Your task to perform on an android device: change your default location settings in chrome Image 0: 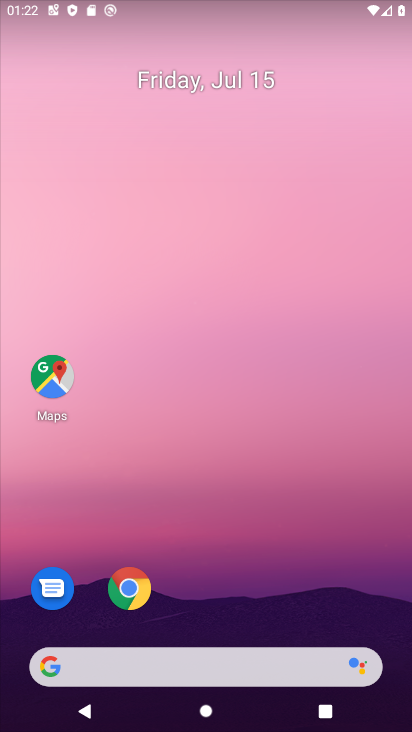
Step 0: click (132, 588)
Your task to perform on an android device: change your default location settings in chrome Image 1: 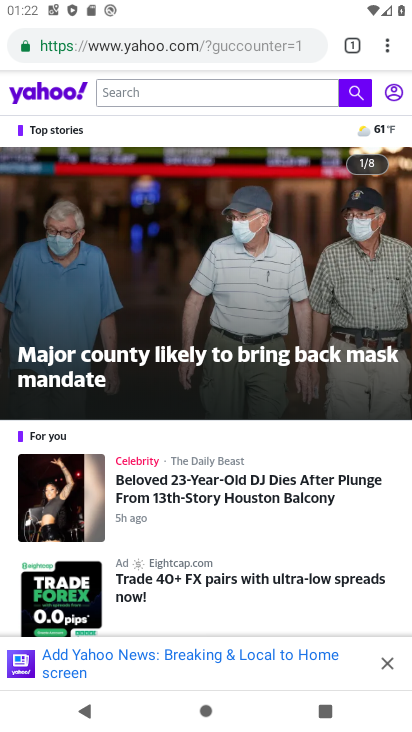
Step 1: click (386, 48)
Your task to perform on an android device: change your default location settings in chrome Image 2: 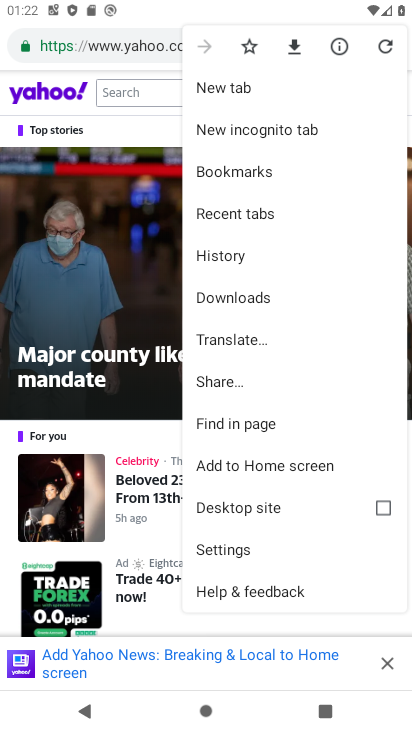
Step 2: click (225, 547)
Your task to perform on an android device: change your default location settings in chrome Image 3: 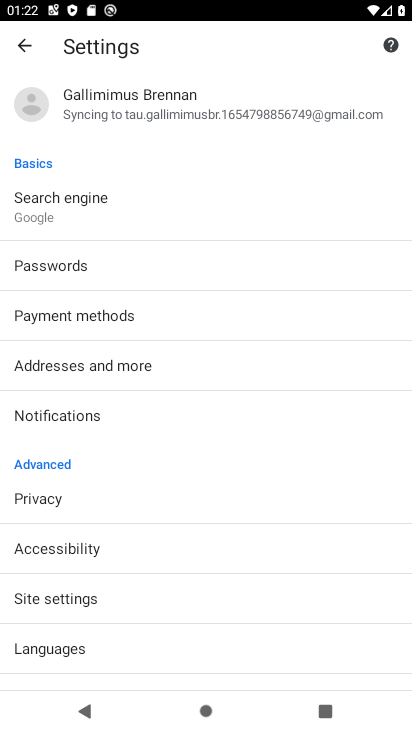
Step 3: drag from (201, 595) to (221, 242)
Your task to perform on an android device: change your default location settings in chrome Image 4: 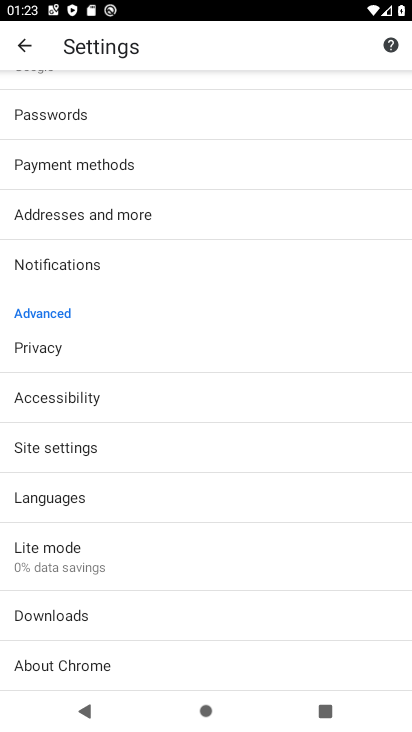
Step 4: click (55, 445)
Your task to perform on an android device: change your default location settings in chrome Image 5: 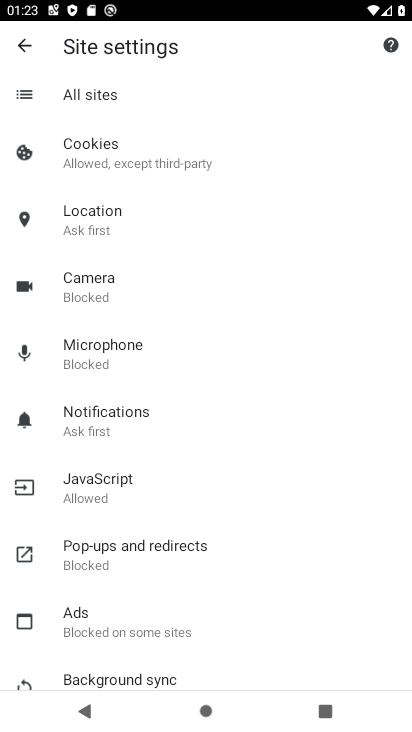
Step 5: click (85, 211)
Your task to perform on an android device: change your default location settings in chrome Image 6: 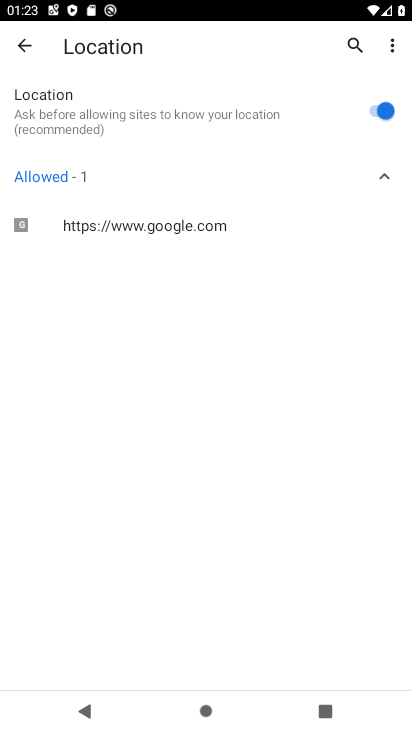
Step 6: click (375, 109)
Your task to perform on an android device: change your default location settings in chrome Image 7: 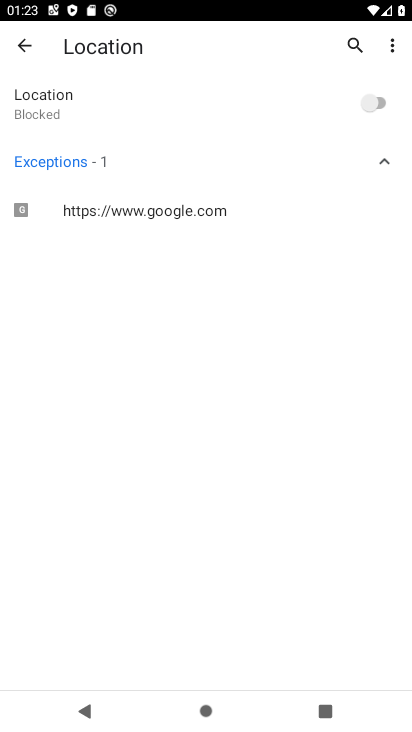
Step 7: task complete